Your task to perform on an android device: turn off notifications in google photos Image 0: 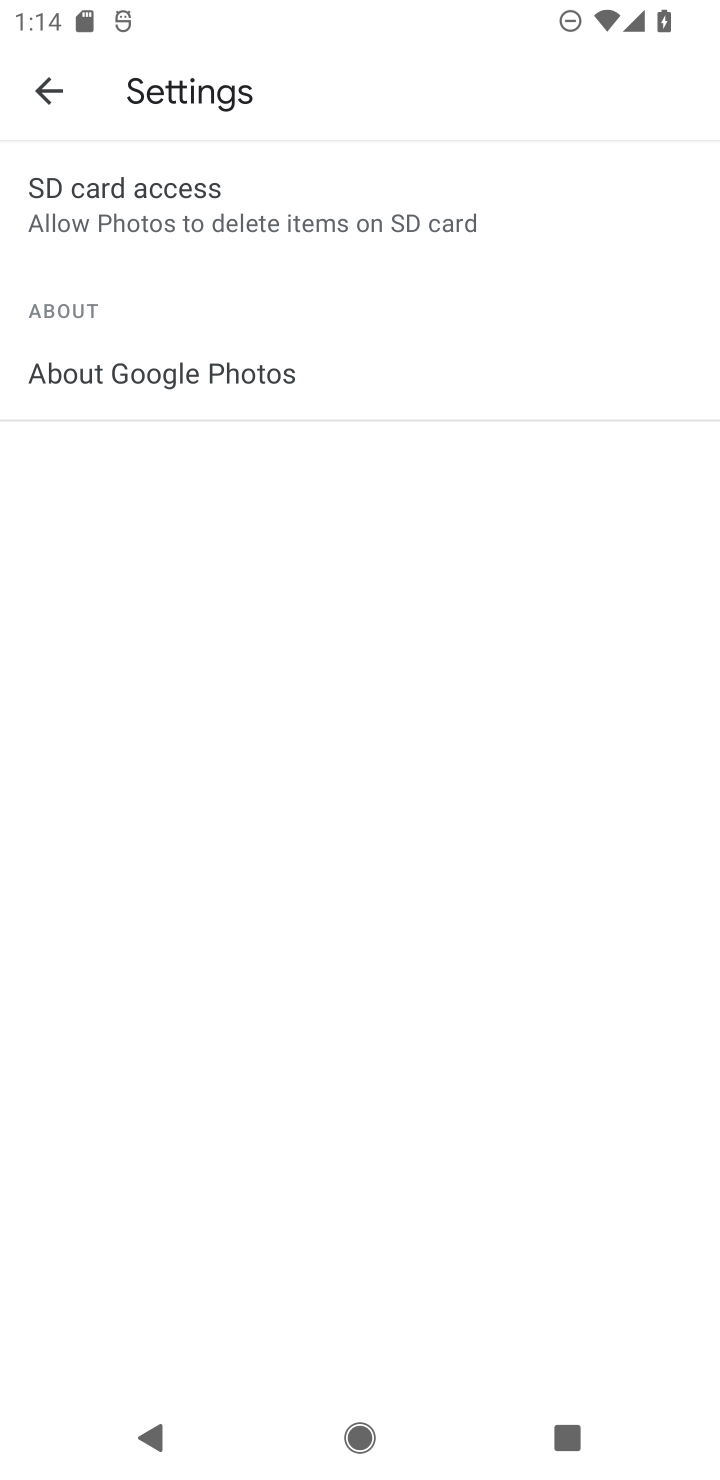
Step 0: click (57, 86)
Your task to perform on an android device: turn off notifications in google photos Image 1: 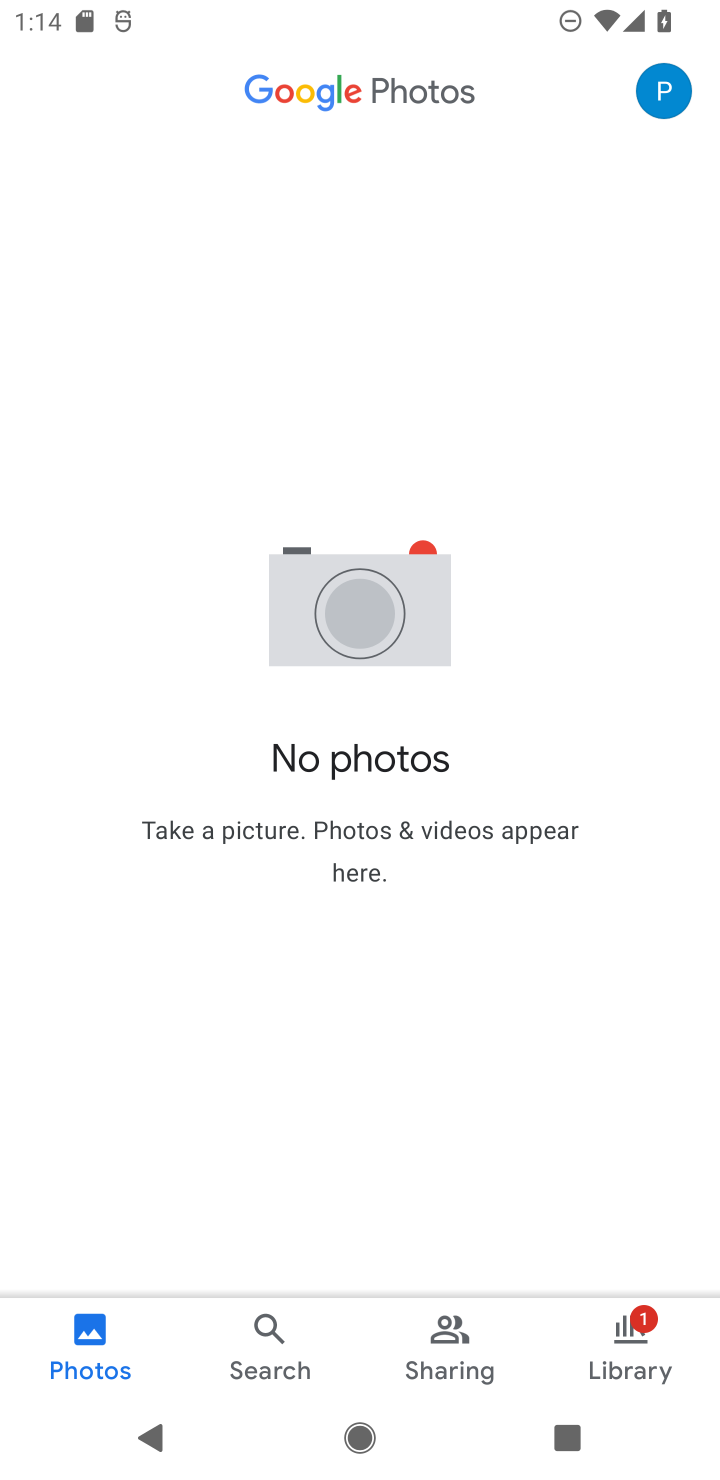
Step 1: click (654, 111)
Your task to perform on an android device: turn off notifications in google photos Image 2: 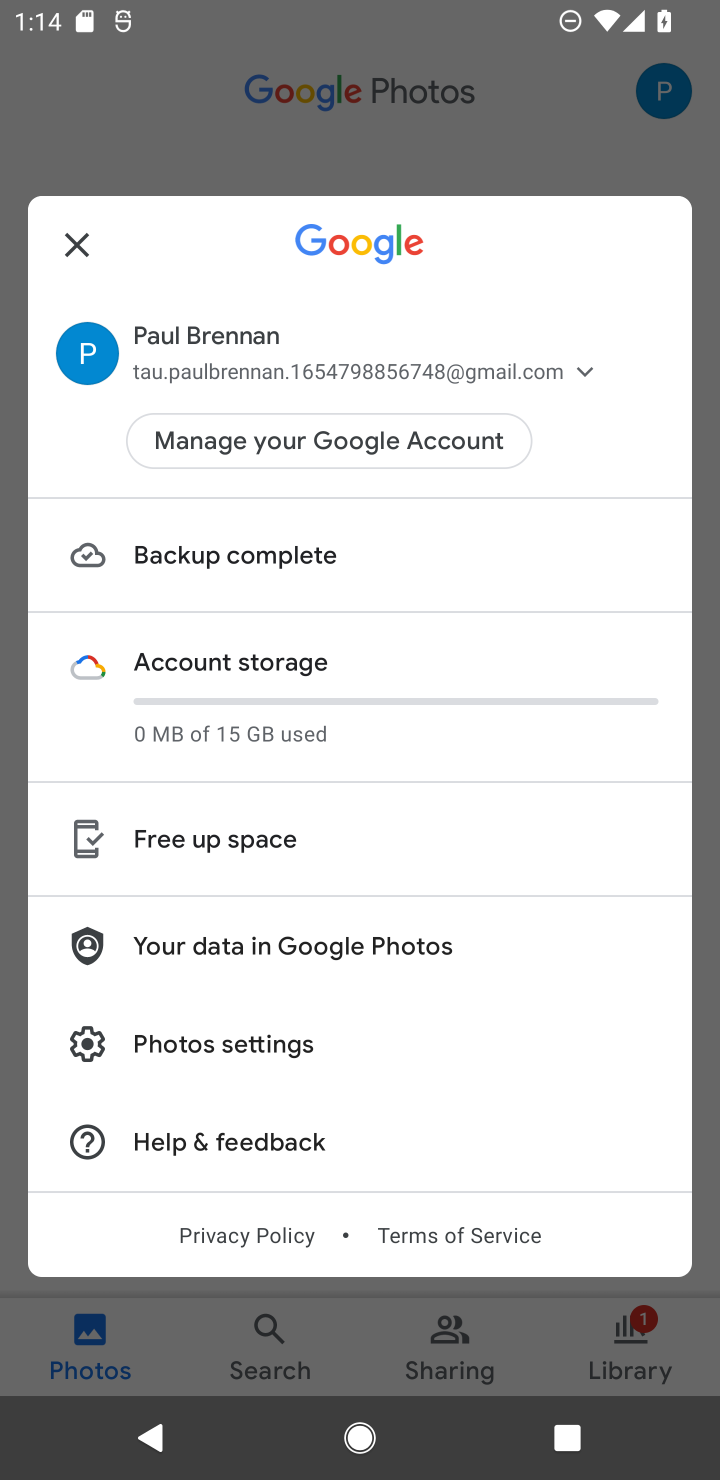
Step 2: click (176, 1045)
Your task to perform on an android device: turn off notifications in google photos Image 3: 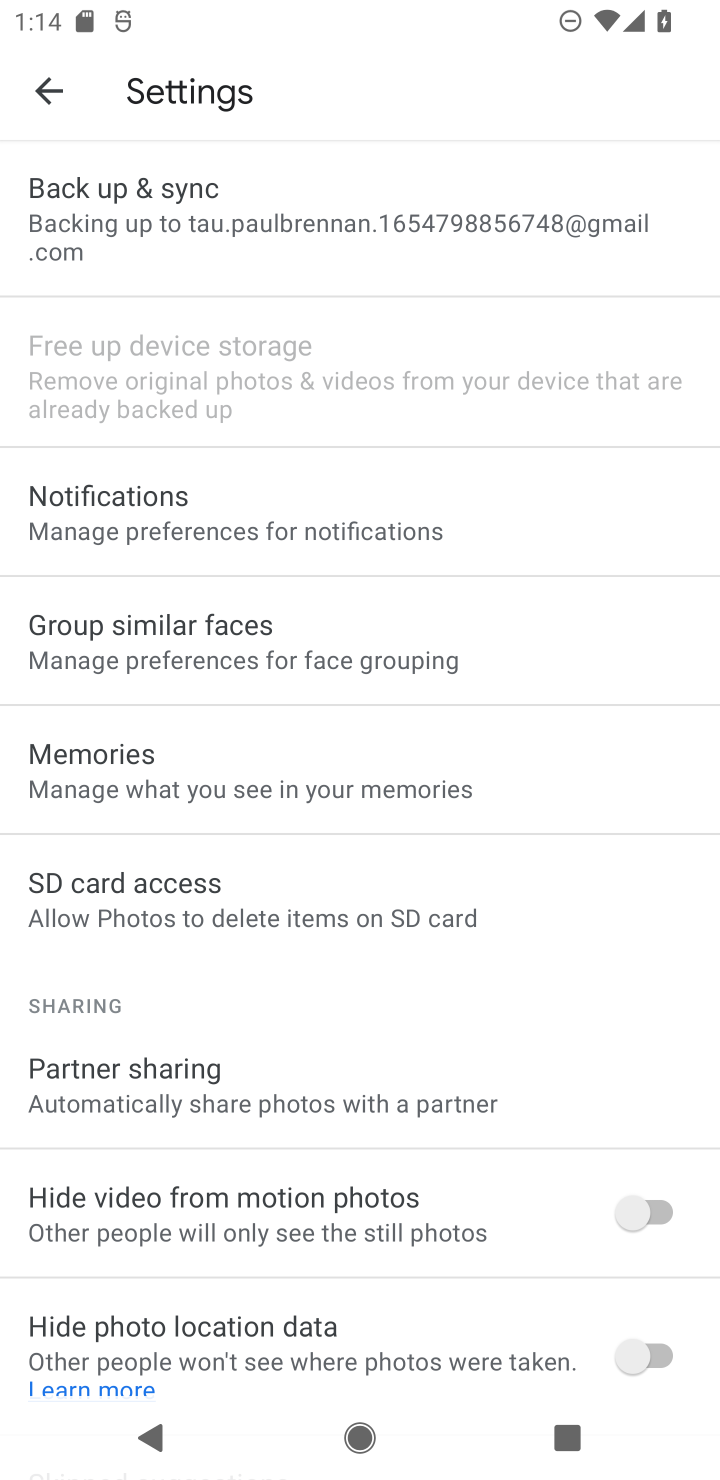
Step 3: click (150, 515)
Your task to perform on an android device: turn off notifications in google photos Image 4: 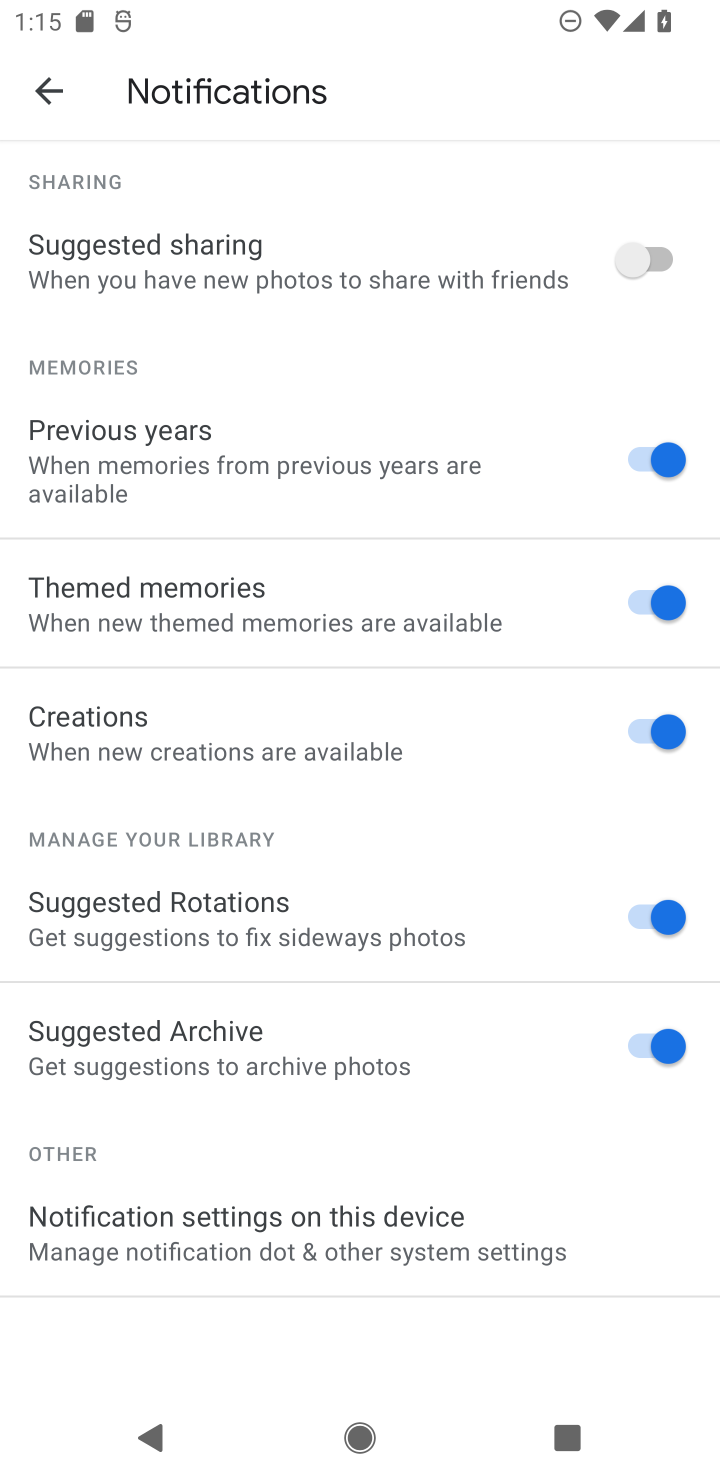
Step 4: click (220, 1239)
Your task to perform on an android device: turn off notifications in google photos Image 5: 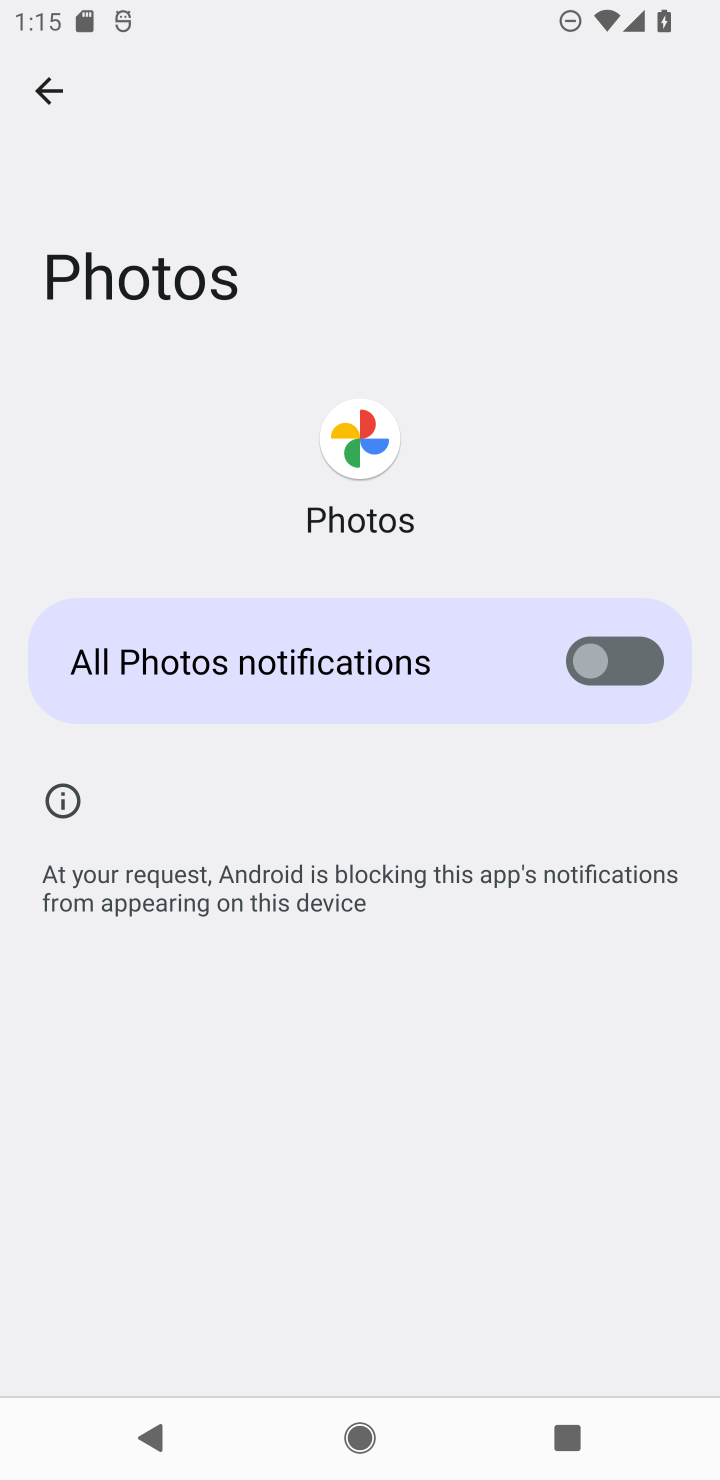
Step 5: task complete